Your task to perform on an android device: Go to network settings Image 0: 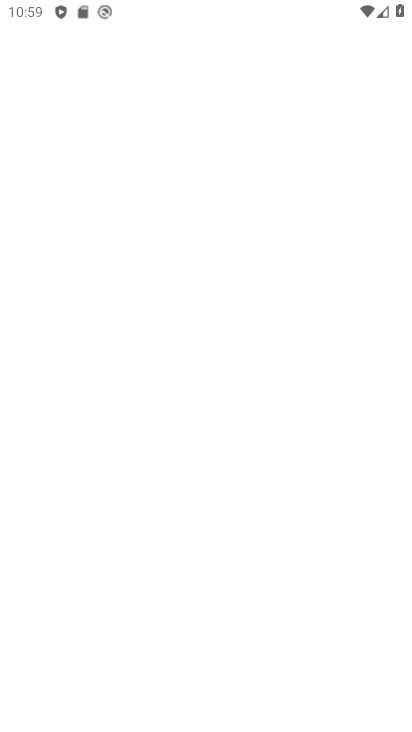
Step 0: drag from (219, 635) to (241, 116)
Your task to perform on an android device: Go to network settings Image 1: 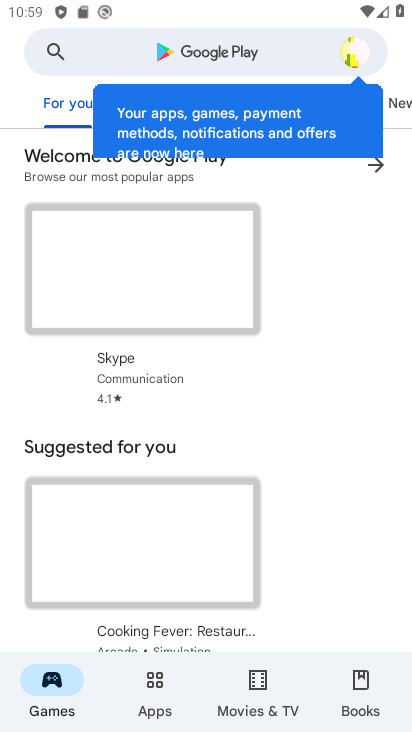
Step 1: drag from (280, 1) to (146, 554)
Your task to perform on an android device: Go to network settings Image 2: 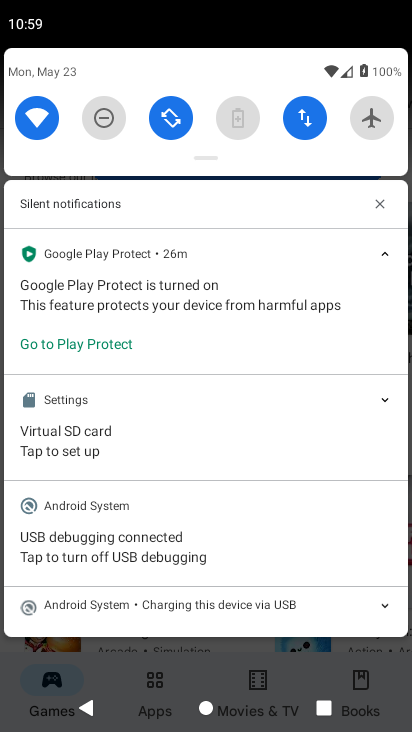
Step 2: click (298, 131)
Your task to perform on an android device: Go to network settings Image 3: 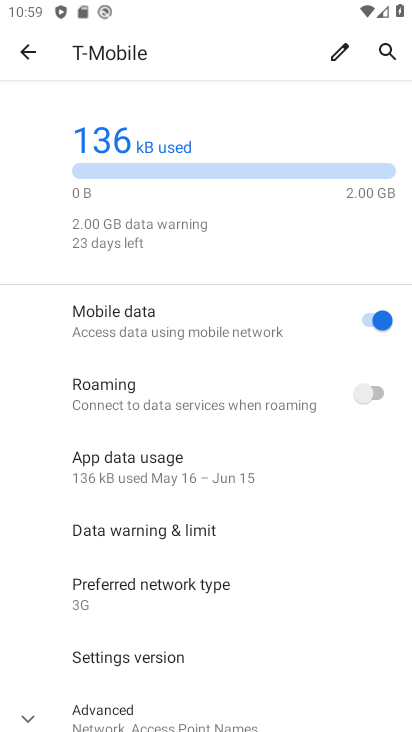
Step 3: task complete